Your task to perform on an android device: toggle airplane mode Image 0: 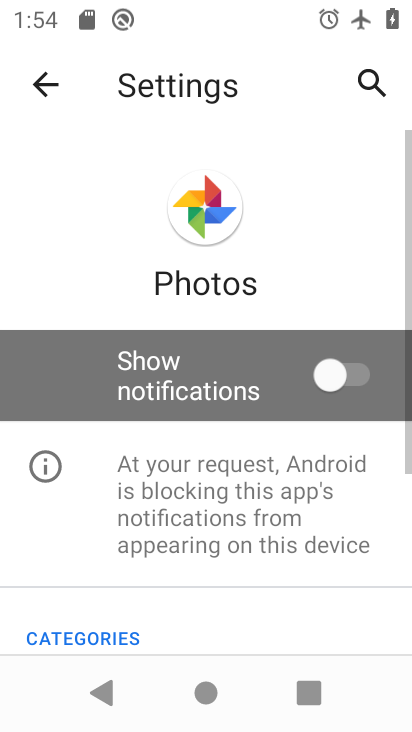
Step 0: press home button
Your task to perform on an android device: toggle airplane mode Image 1: 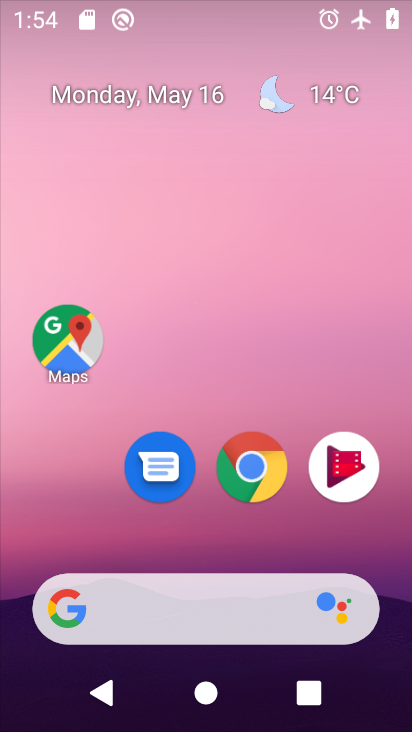
Step 1: drag from (251, 532) to (277, 209)
Your task to perform on an android device: toggle airplane mode Image 2: 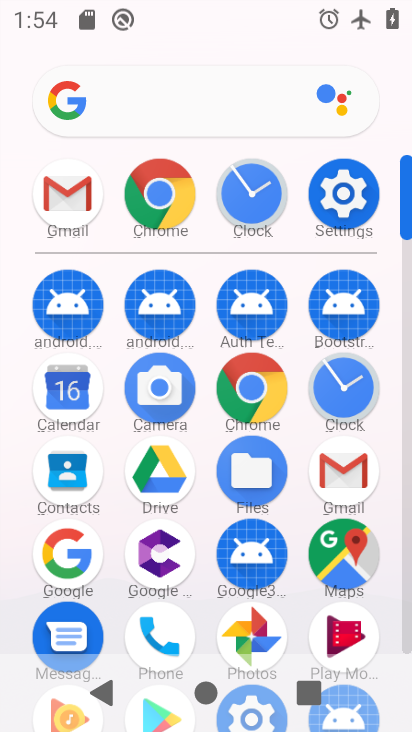
Step 2: click (346, 186)
Your task to perform on an android device: toggle airplane mode Image 3: 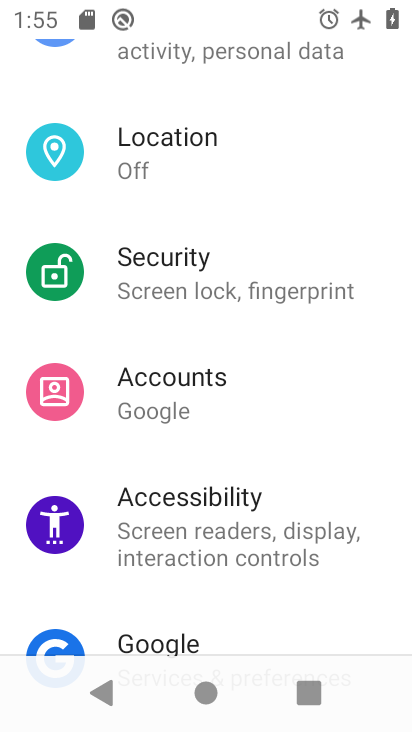
Step 3: drag from (228, 153) to (184, 501)
Your task to perform on an android device: toggle airplane mode Image 4: 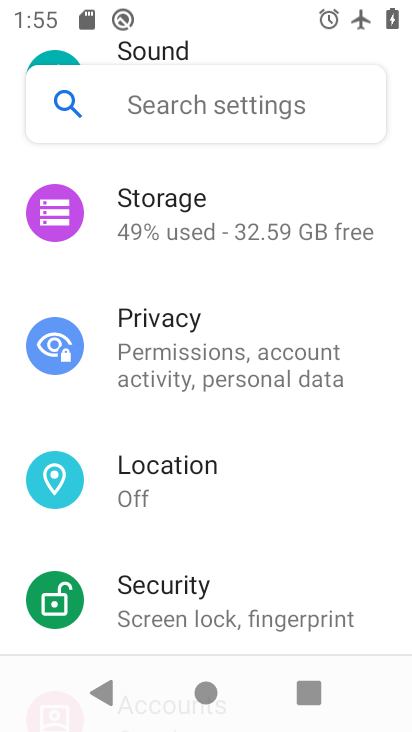
Step 4: drag from (245, 228) to (189, 599)
Your task to perform on an android device: toggle airplane mode Image 5: 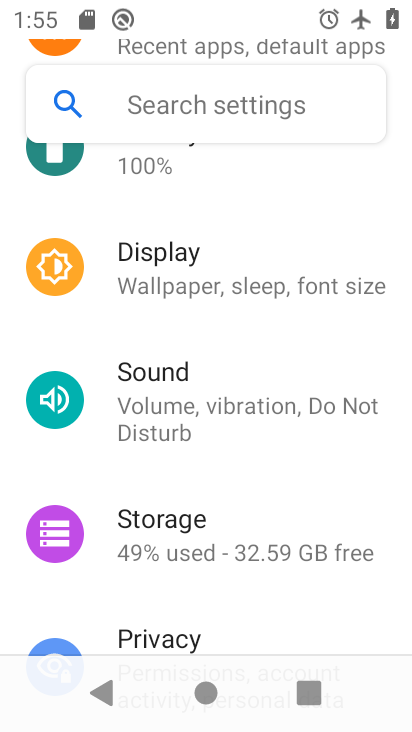
Step 5: drag from (212, 208) to (174, 542)
Your task to perform on an android device: toggle airplane mode Image 6: 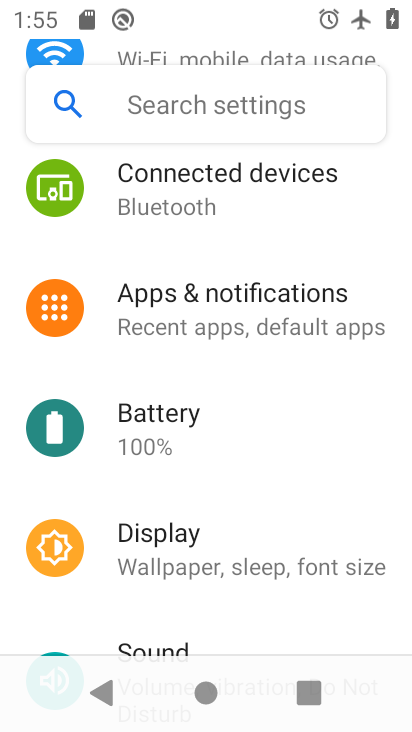
Step 6: drag from (297, 195) to (208, 532)
Your task to perform on an android device: toggle airplane mode Image 7: 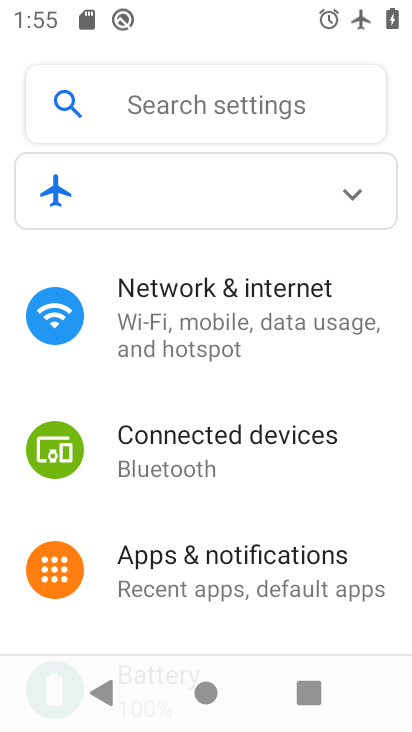
Step 7: click (220, 277)
Your task to perform on an android device: toggle airplane mode Image 8: 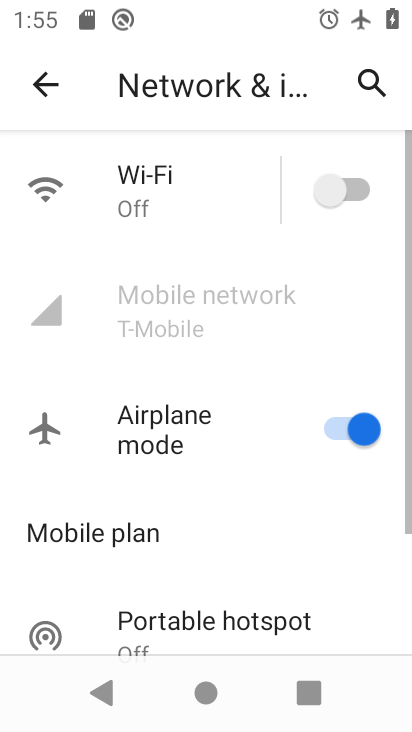
Step 8: click (328, 414)
Your task to perform on an android device: toggle airplane mode Image 9: 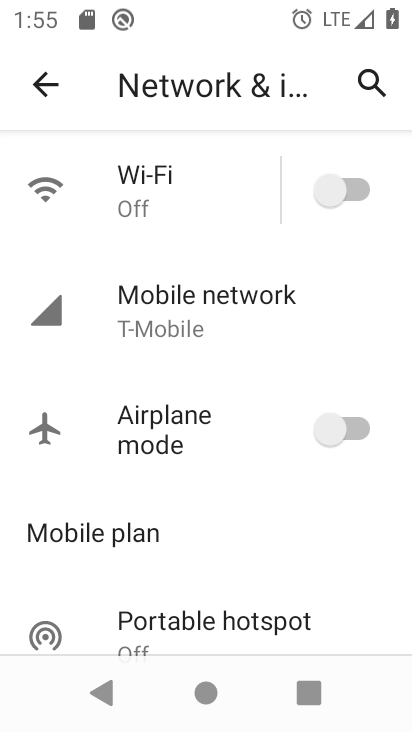
Step 9: task complete